Your task to perform on an android device: delete location history Image 0: 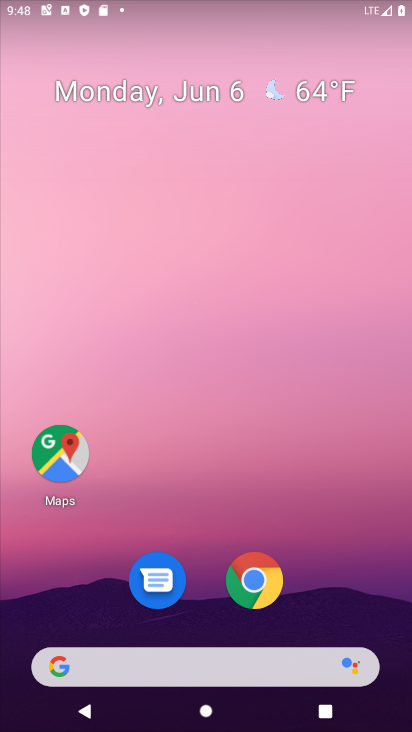
Step 0: drag from (371, 538) to (98, 729)
Your task to perform on an android device: delete location history Image 1: 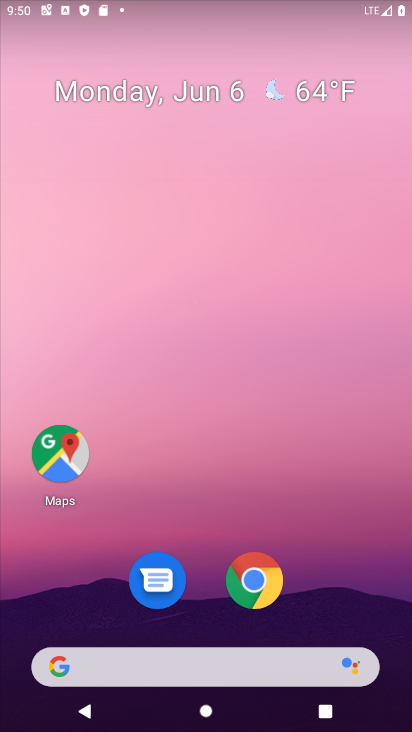
Step 1: drag from (347, 577) to (186, 25)
Your task to perform on an android device: delete location history Image 2: 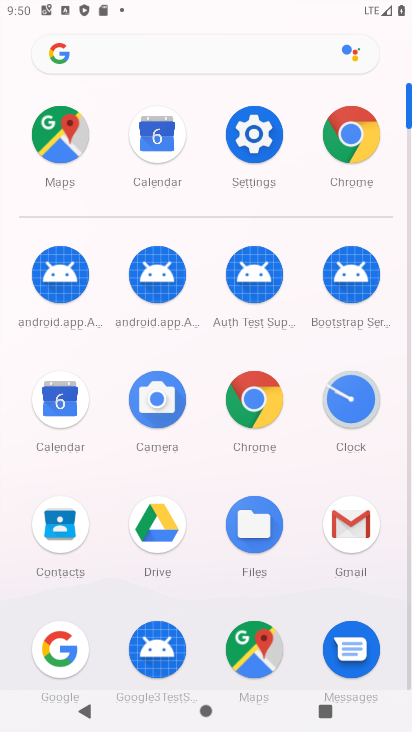
Step 2: click (251, 638)
Your task to perform on an android device: delete location history Image 3: 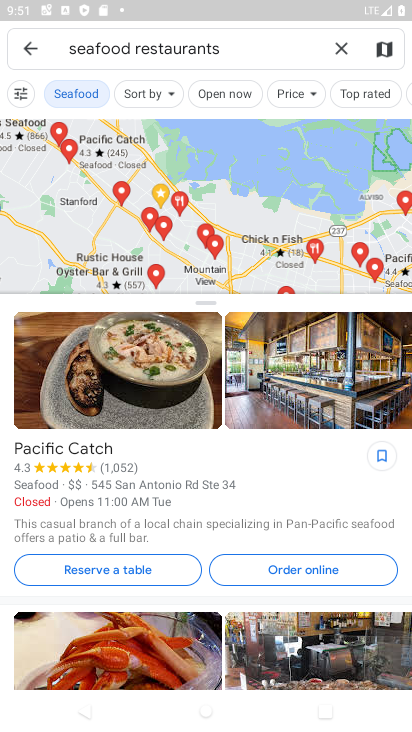
Step 3: click (34, 55)
Your task to perform on an android device: delete location history Image 4: 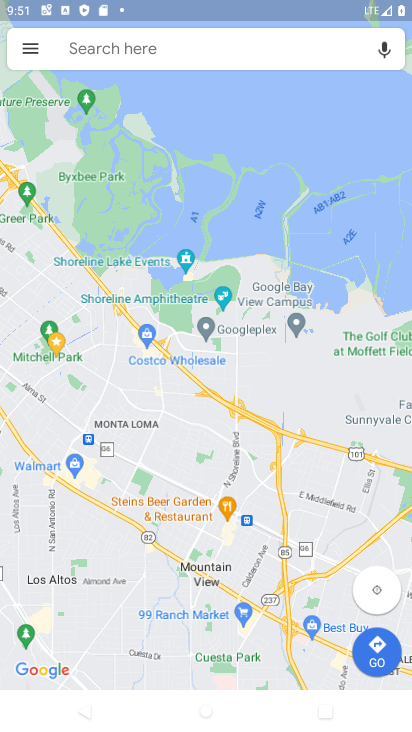
Step 4: click (35, 55)
Your task to perform on an android device: delete location history Image 5: 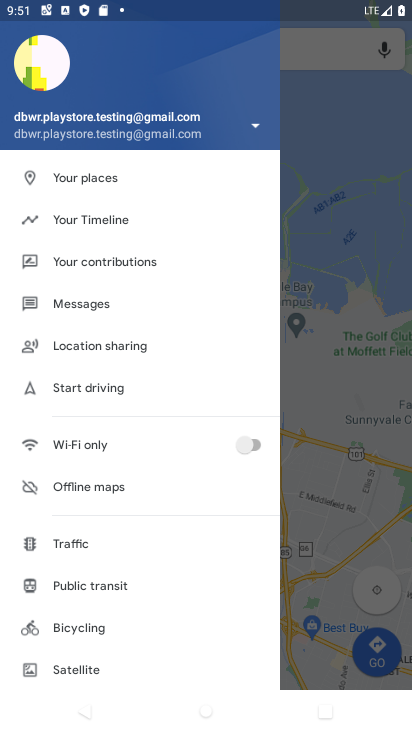
Step 5: drag from (147, 618) to (166, 134)
Your task to perform on an android device: delete location history Image 6: 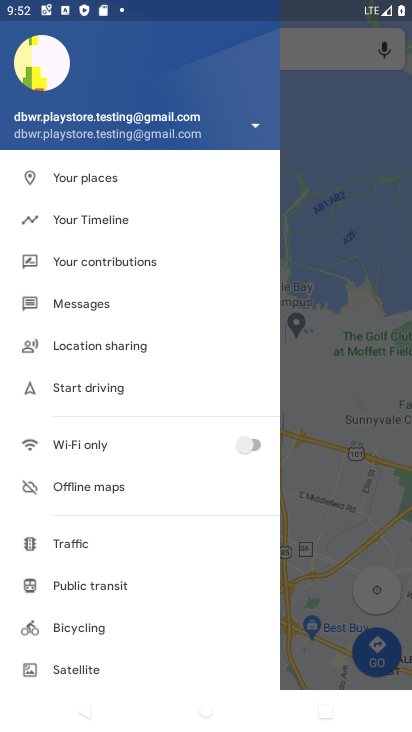
Step 6: click (101, 223)
Your task to perform on an android device: delete location history Image 7: 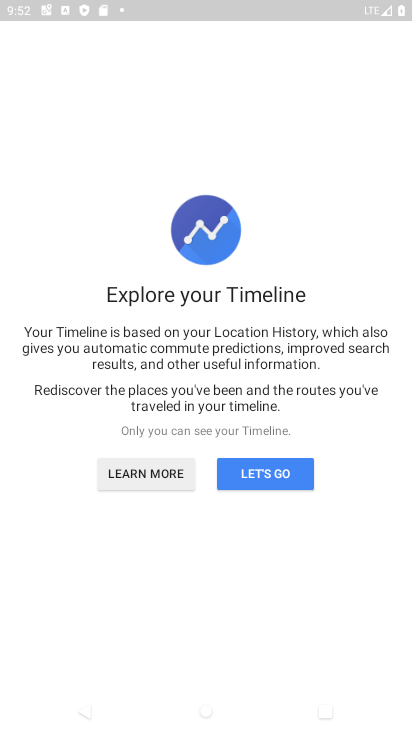
Step 7: click (285, 475)
Your task to perform on an android device: delete location history Image 8: 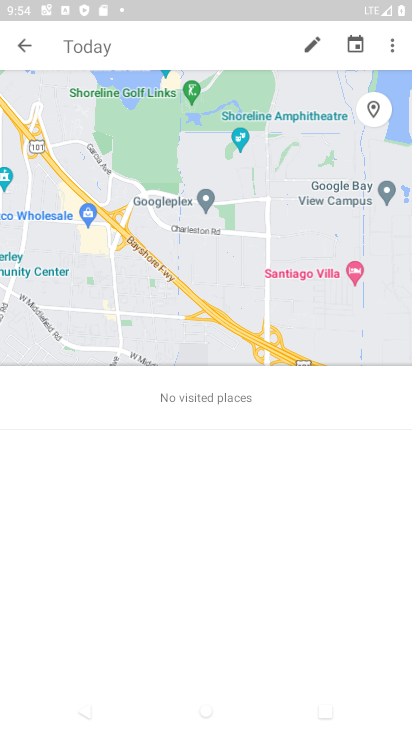
Step 8: click (399, 44)
Your task to perform on an android device: delete location history Image 9: 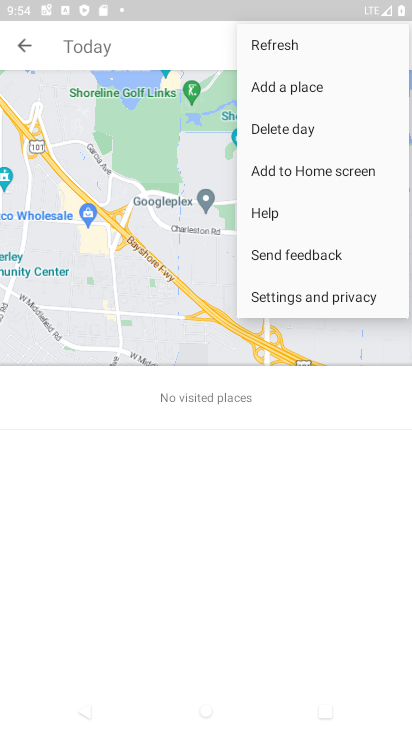
Step 9: click (344, 295)
Your task to perform on an android device: delete location history Image 10: 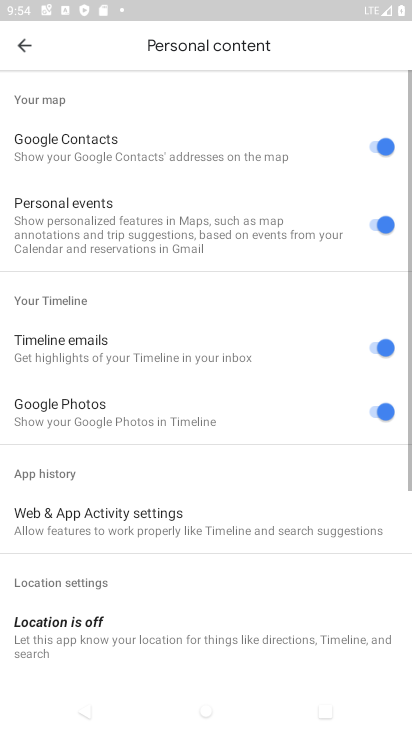
Step 10: drag from (216, 623) to (258, 139)
Your task to perform on an android device: delete location history Image 11: 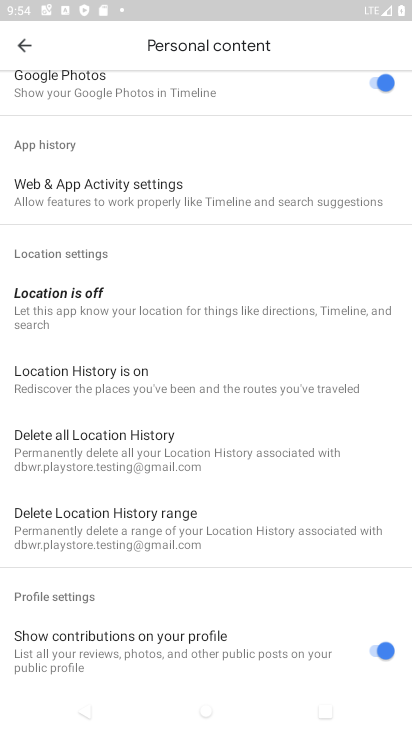
Step 11: click (208, 456)
Your task to perform on an android device: delete location history Image 12: 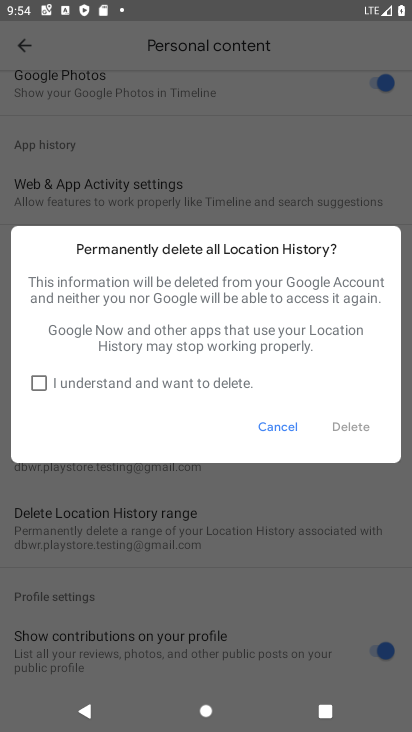
Step 12: click (43, 388)
Your task to perform on an android device: delete location history Image 13: 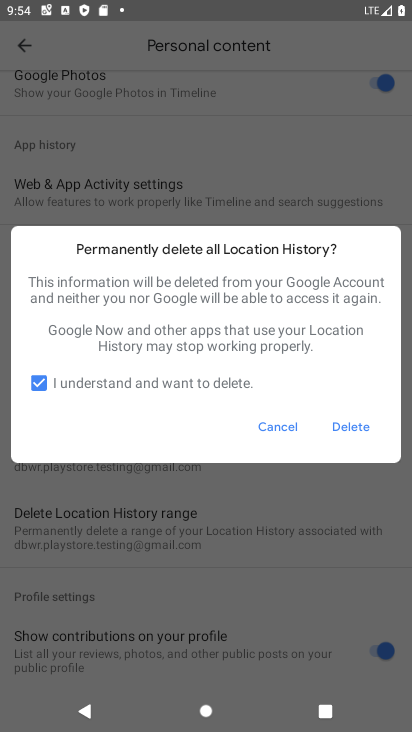
Step 13: click (355, 427)
Your task to perform on an android device: delete location history Image 14: 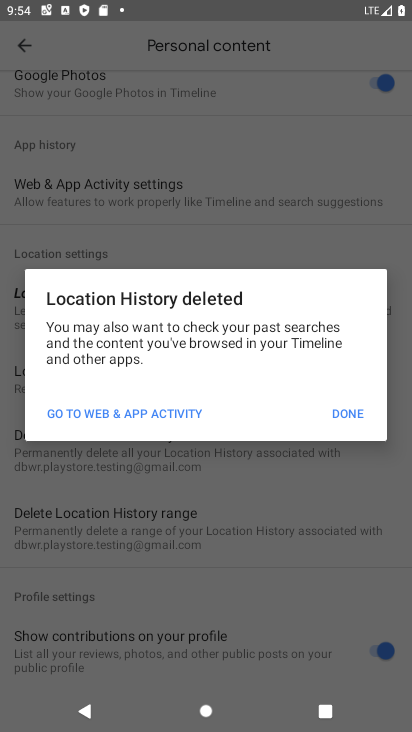
Step 14: click (338, 419)
Your task to perform on an android device: delete location history Image 15: 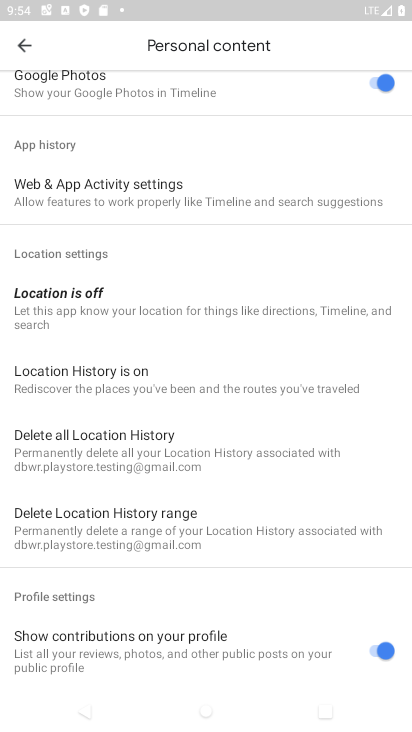
Step 15: task complete